Your task to perform on an android device: delete browsing data in the chrome app Image 0: 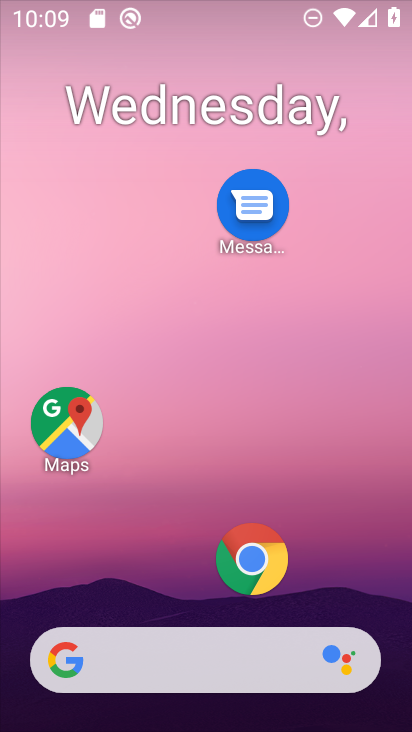
Step 0: press home button
Your task to perform on an android device: delete browsing data in the chrome app Image 1: 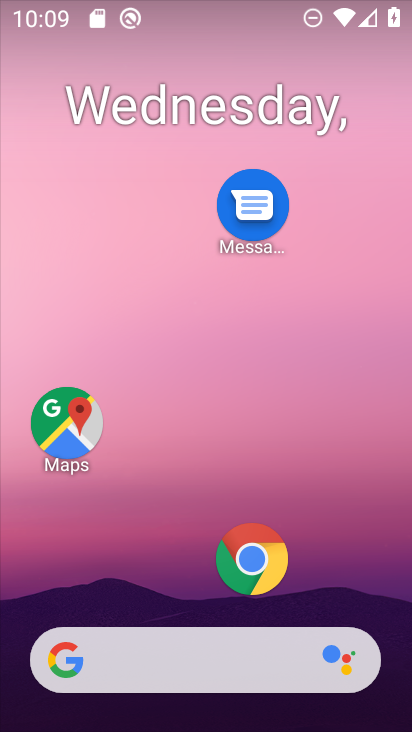
Step 1: drag from (197, 648) to (247, 299)
Your task to perform on an android device: delete browsing data in the chrome app Image 2: 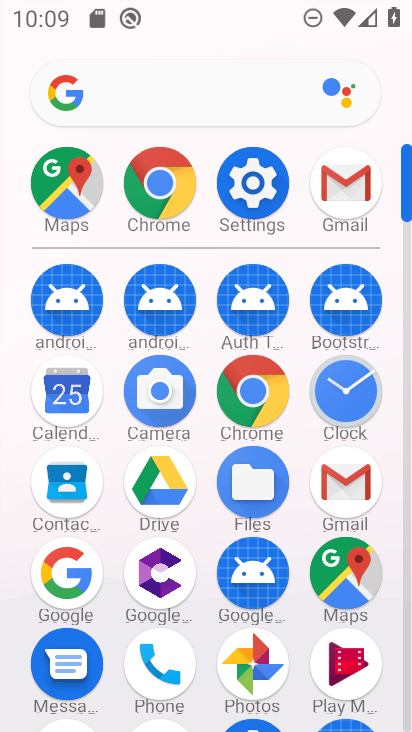
Step 2: click (264, 417)
Your task to perform on an android device: delete browsing data in the chrome app Image 3: 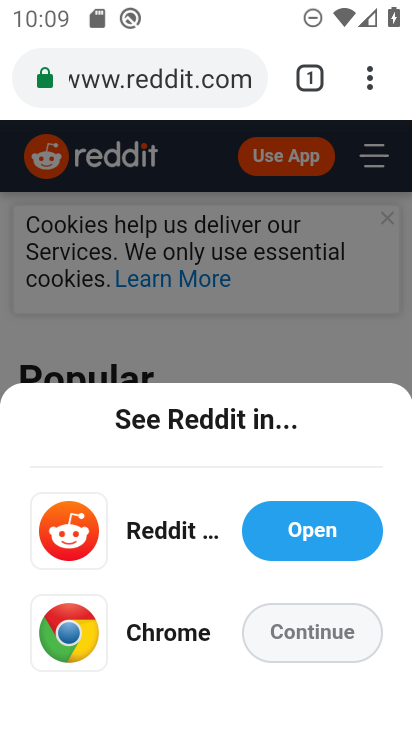
Step 3: click (364, 90)
Your task to perform on an android device: delete browsing data in the chrome app Image 4: 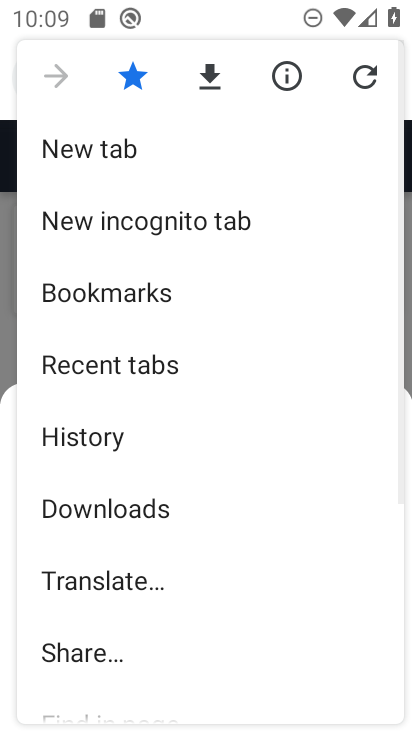
Step 4: drag from (159, 515) to (164, 256)
Your task to perform on an android device: delete browsing data in the chrome app Image 5: 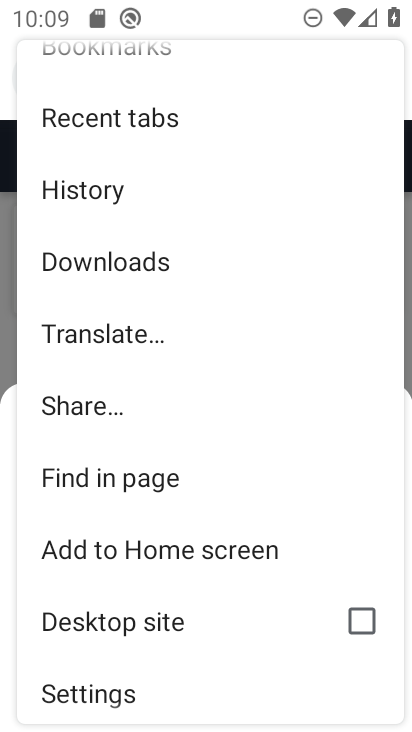
Step 5: drag from (119, 545) to (168, 289)
Your task to perform on an android device: delete browsing data in the chrome app Image 6: 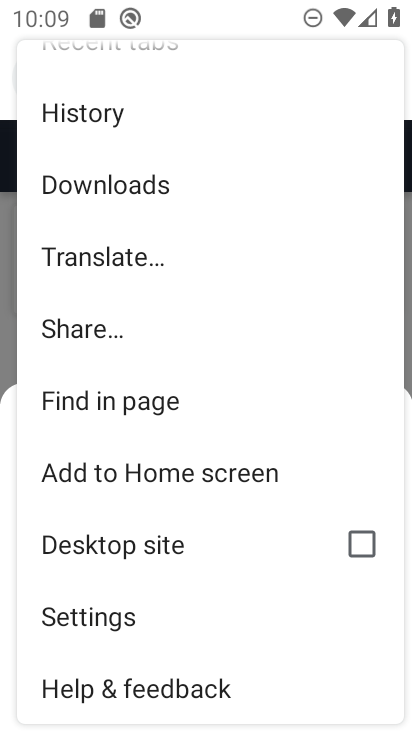
Step 6: click (121, 121)
Your task to perform on an android device: delete browsing data in the chrome app Image 7: 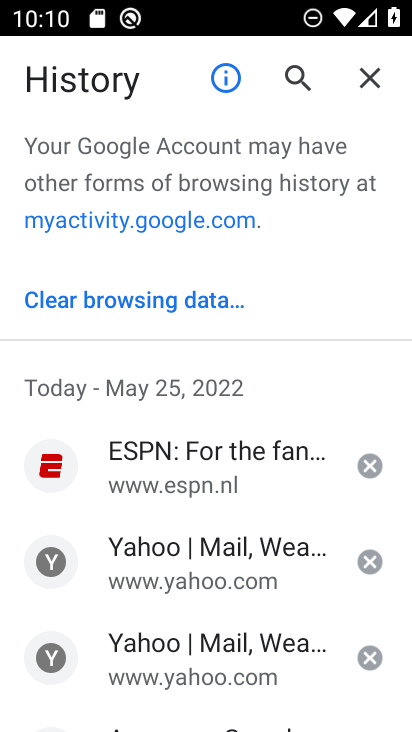
Step 7: click (145, 301)
Your task to perform on an android device: delete browsing data in the chrome app Image 8: 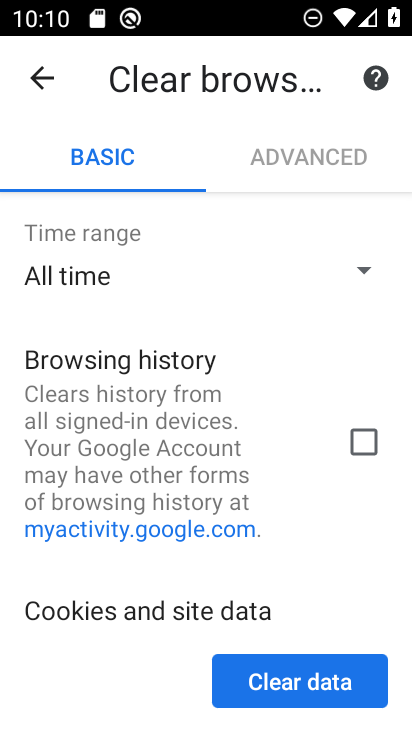
Step 8: click (367, 445)
Your task to perform on an android device: delete browsing data in the chrome app Image 9: 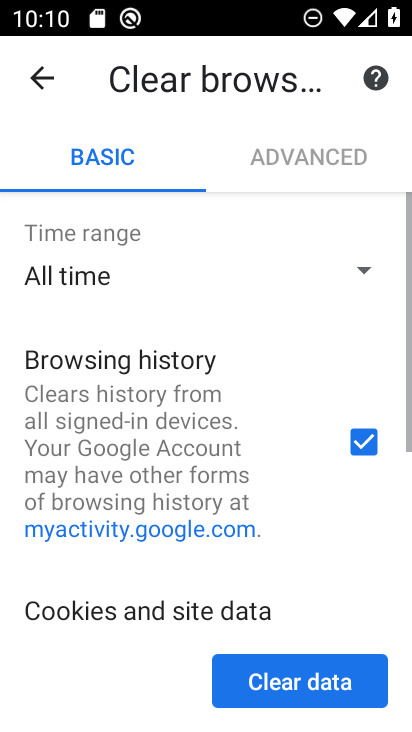
Step 9: click (328, 679)
Your task to perform on an android device: delete browsing data in the chrome app Image 10: 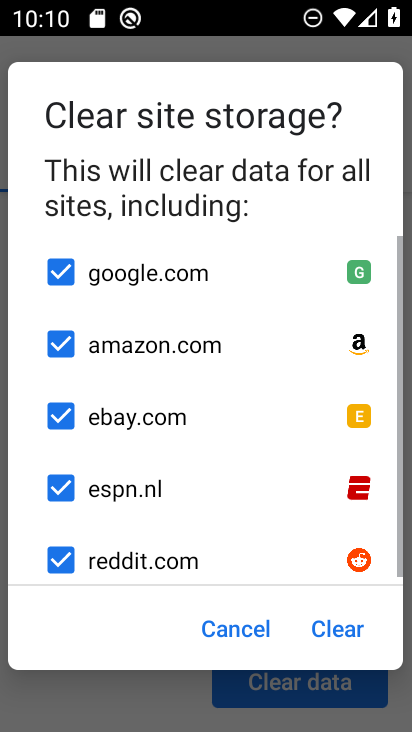
Step 10: click (331, 638)
Your task to perform on an android device: delete browsing data in the chrome app Image 11: 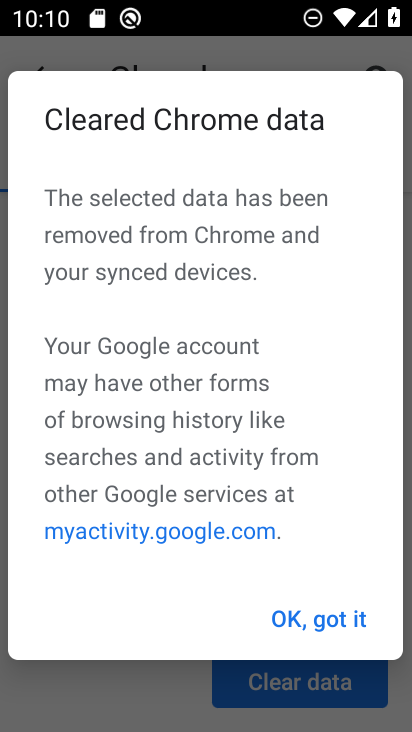
Step 11: task complete